Your task to perform on an android device: What is the news today? Image 0: 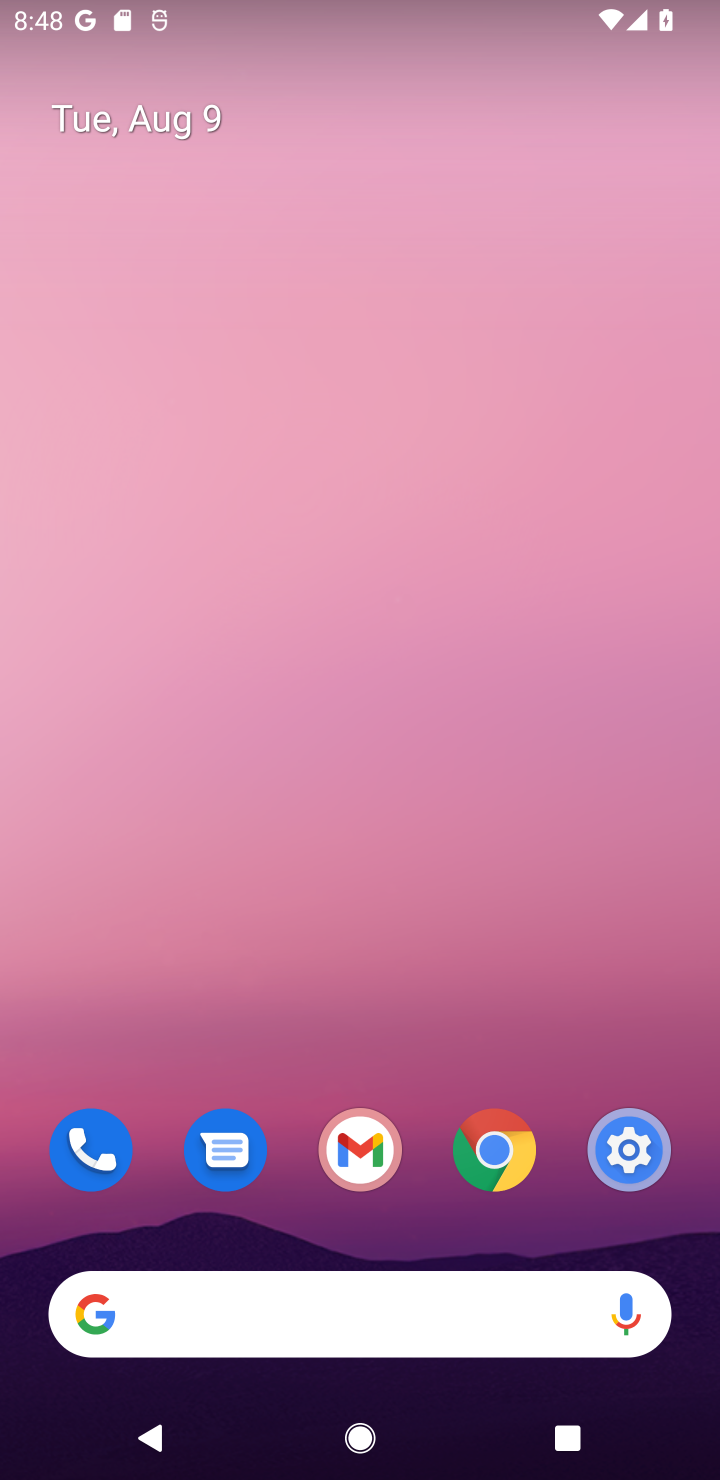
Step 0: drag from (306, 1229) to (431, 92)
Your task to perform on an android device: What is the news today? Image 1: 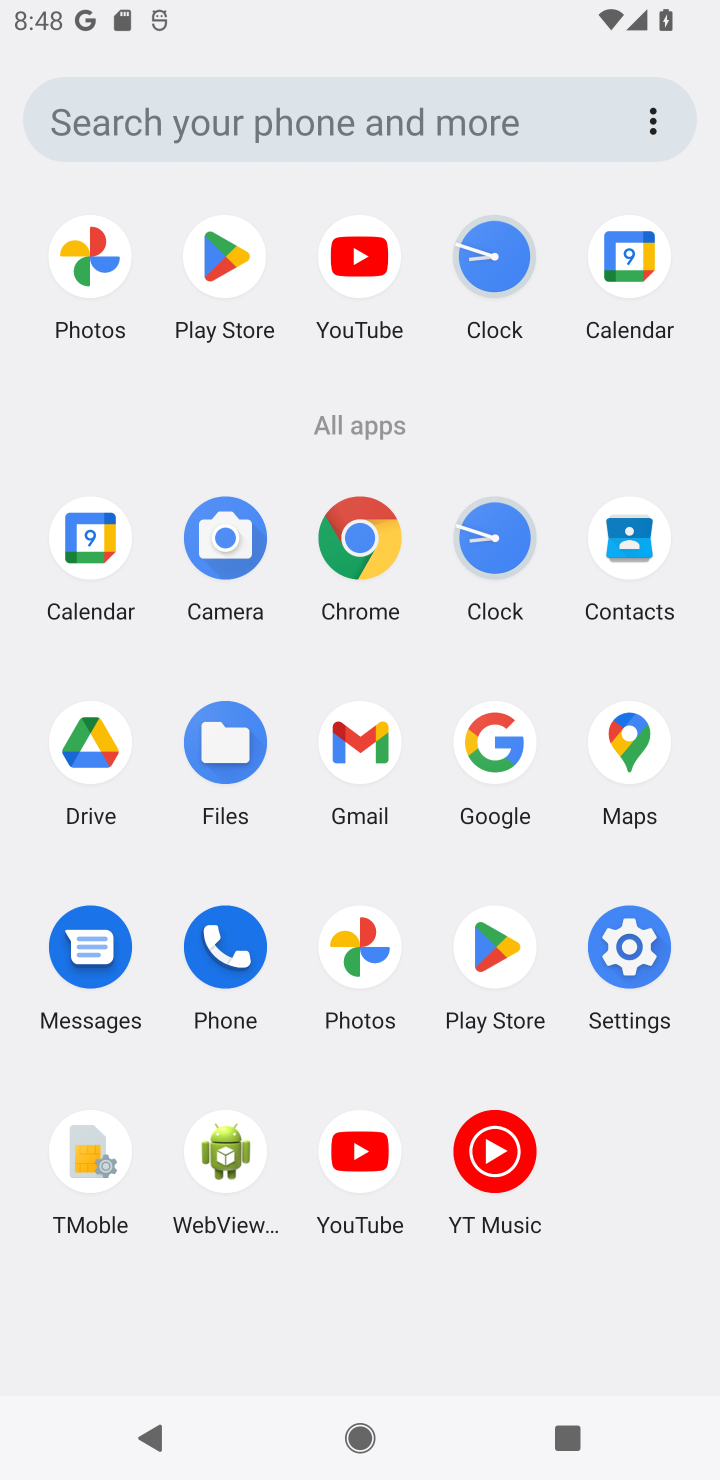
Step 1: click (468, 778)
Your task to perform on an android device: What is the news today? Image 2: 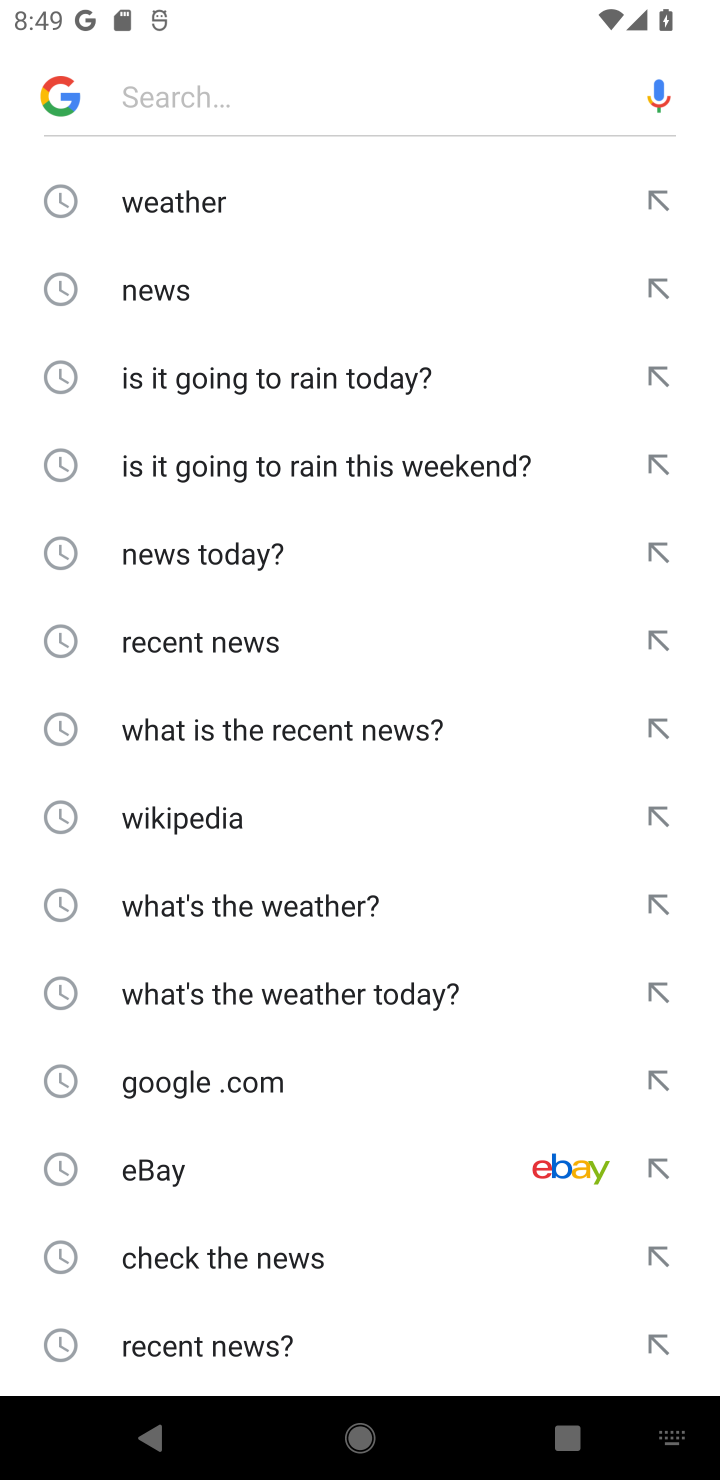
Step 2: click (252, 280)
Your task to perform on an android device: What is the news today? Image 3: 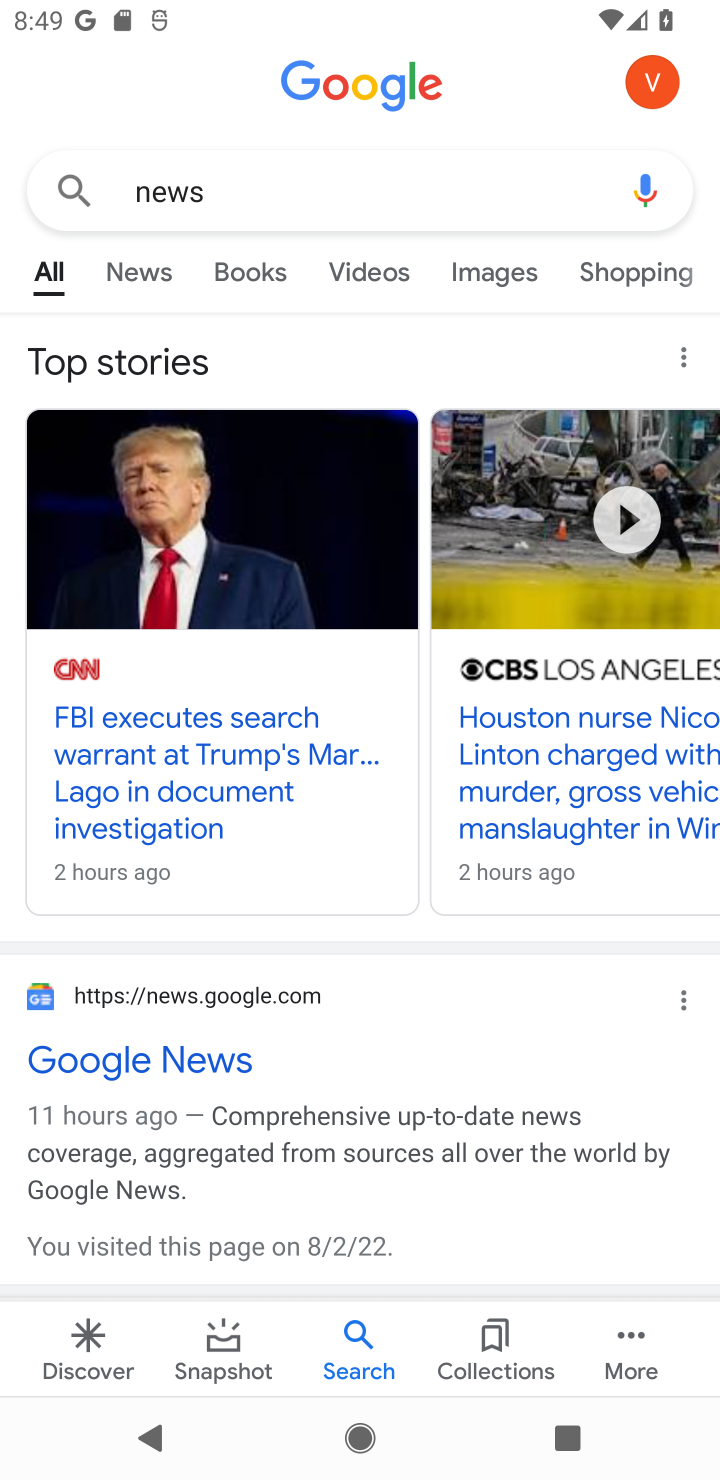
Step 3: task complete